Your task to perform on an android device: Show me popular games on the Play Store Image 0: 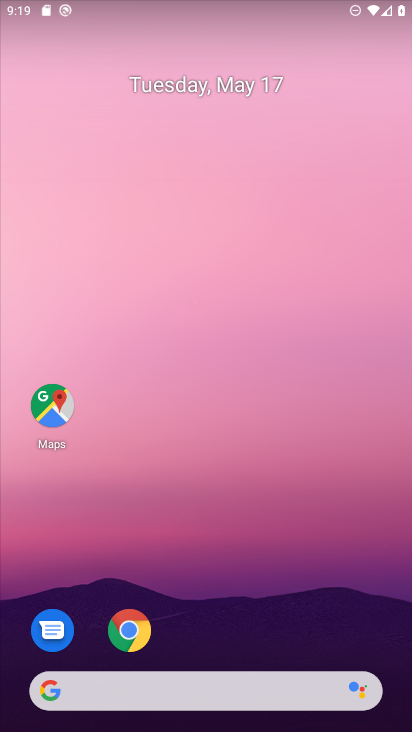
Step 0: drag from (354, 618) to (365, 126)
Your task to perform on an android device: Show me popular games on the Play Store Image 1: 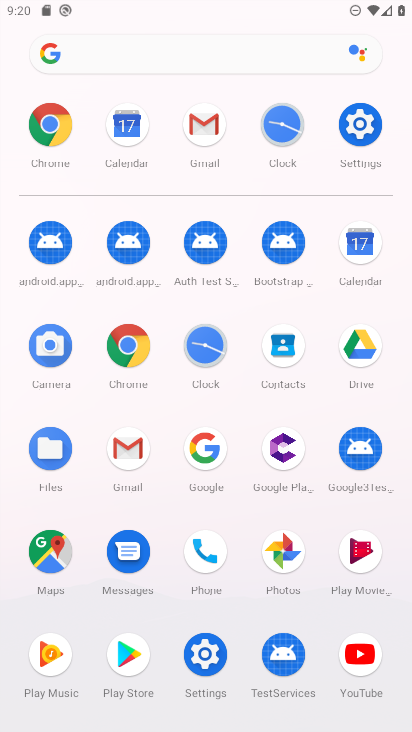
Step 1: click (122, 668)
Your task to perform on an android device: Show me popular games on the Play Store Image 2: 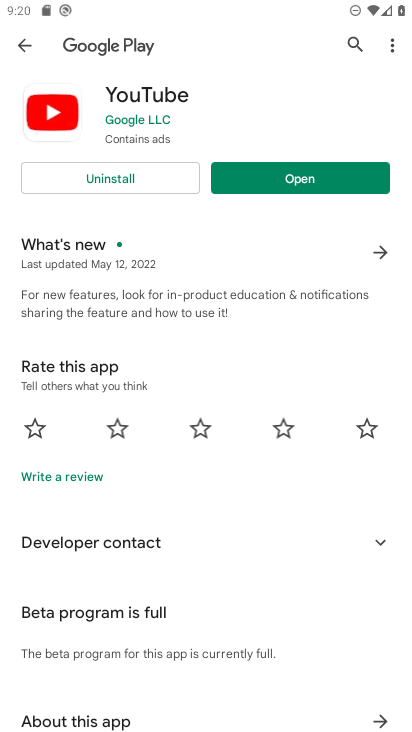
Step 2: click (24, 40)
Your task to perform on an android device: Show me popular games on the Play Store Image 3: 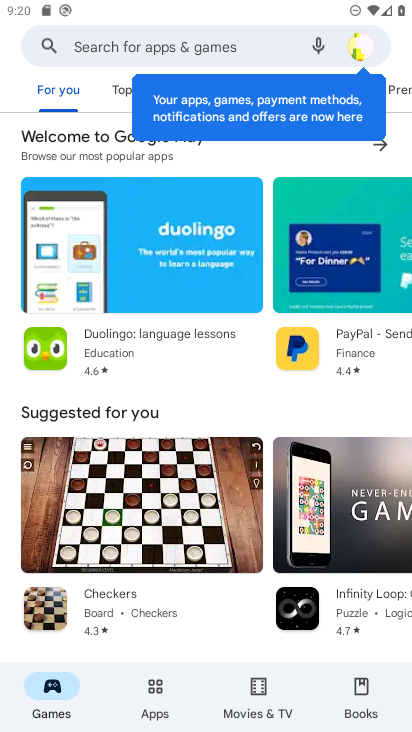
Step 3: task complete